Your task to perform on an android device: Search for Italian restaurants on Maps Image 0: 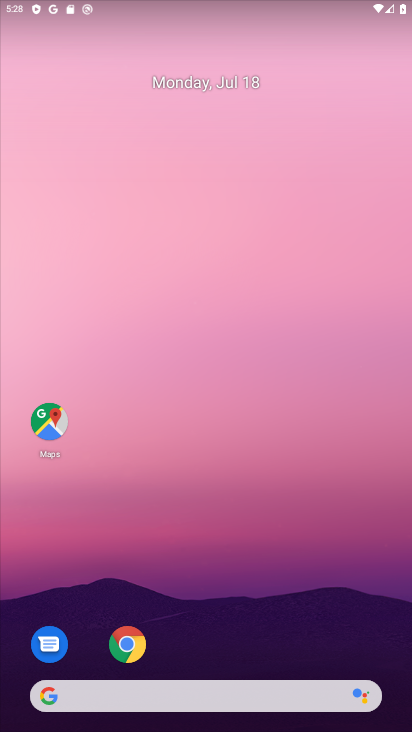
Step 0: press home button
Your task to perform on an android device: Search for Italian restaurants on Maps Image 1: 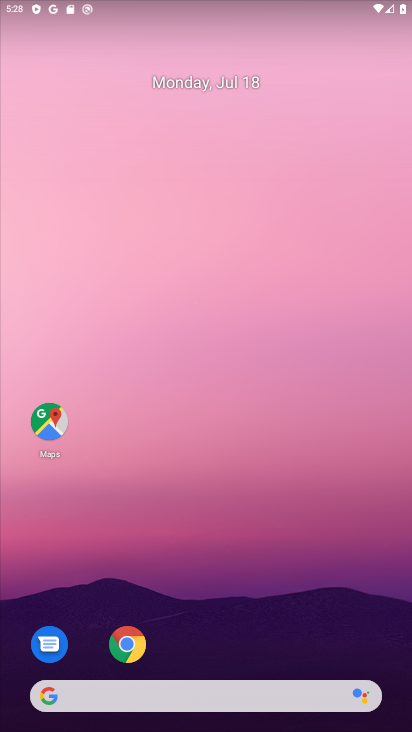
Step 1: click (43, 429)
Your task to perform on an android device: Search for Italian restaurants on Maps Image 2: 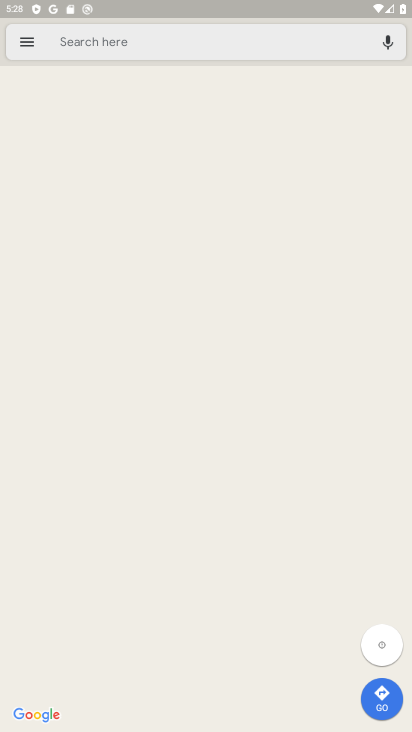
Step 2: click (80, 40)
Your task to perform on an android device: Search for Italian restaurants on Maps Image 3: 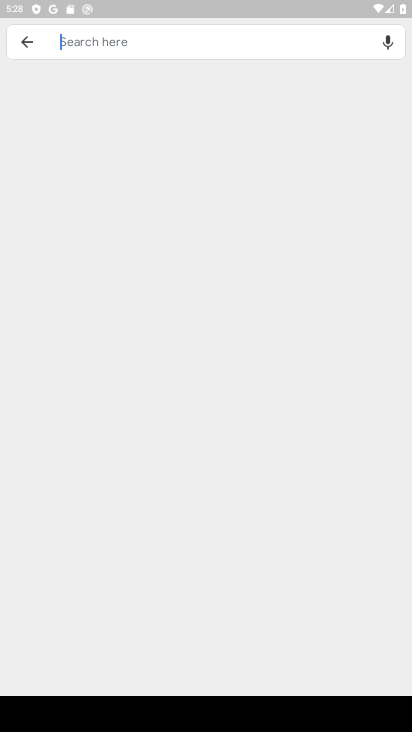
Step 3: type "Italian restaurants"
Your task to perform on an android device: Search for Italian restaurants on Maps Image 4: 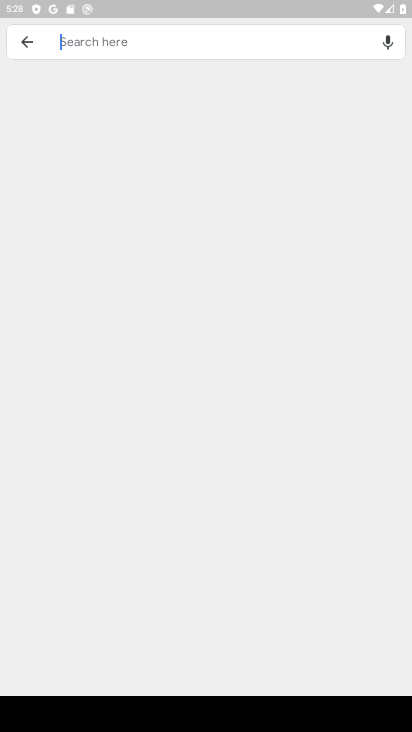
Step 4: click (83, 38)
Your task to perform on an android device: Search for Italian restaurants on Maps Image 5: 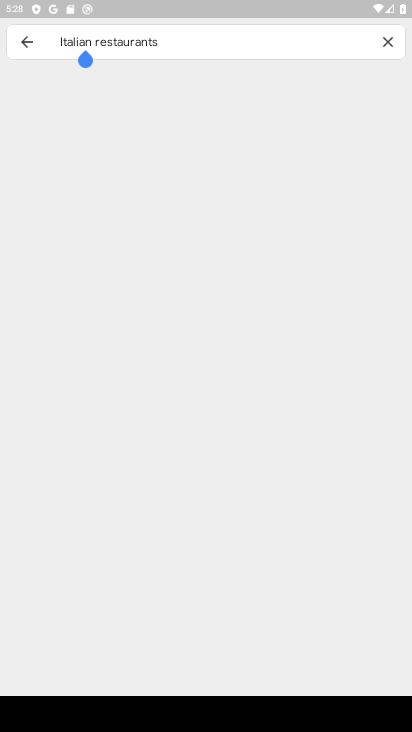
Step 5: press enter
Your task to perform on an android device: Search for Italian restaurants on Maps Image 6: 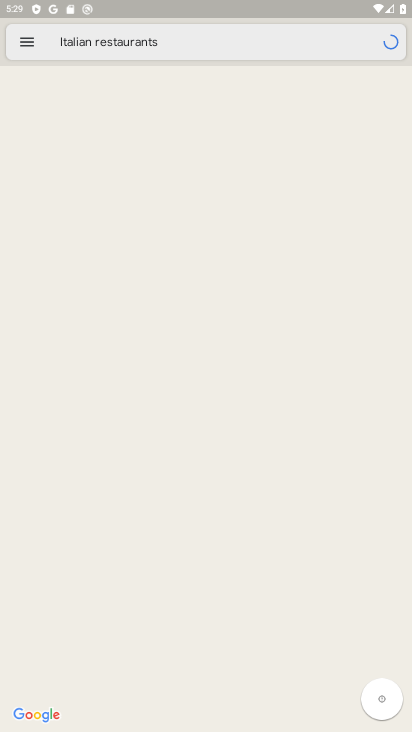
Step 6: click (212, 38)
Your task to perform on an android device: Search for Italian restaurants on Maps Image 7: 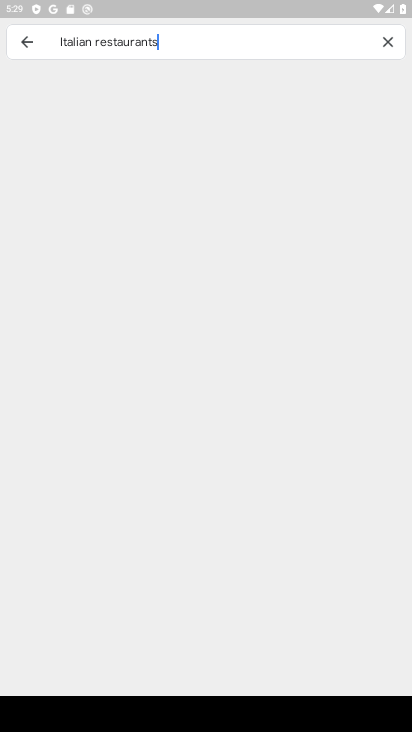
Step 7: task complete